Your task to perform on an android device: Clear the shopping cart on newegg.com. Search for dell xps on newegg.com, select the first entry, add it to the cart, then select checkout. Image 0: 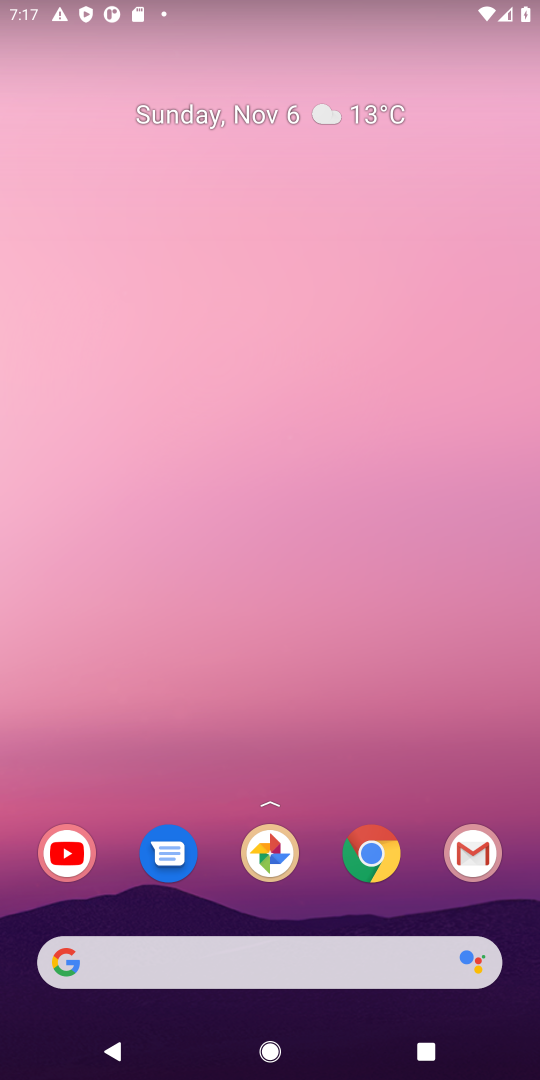
Step 0: click (367, 854)
Your task to perform on an android device: Clear the shopping cart on newegg.com. Search for dell xps on newegg.com, select the first entry, add it to the cart, then select checkout. Image 1: 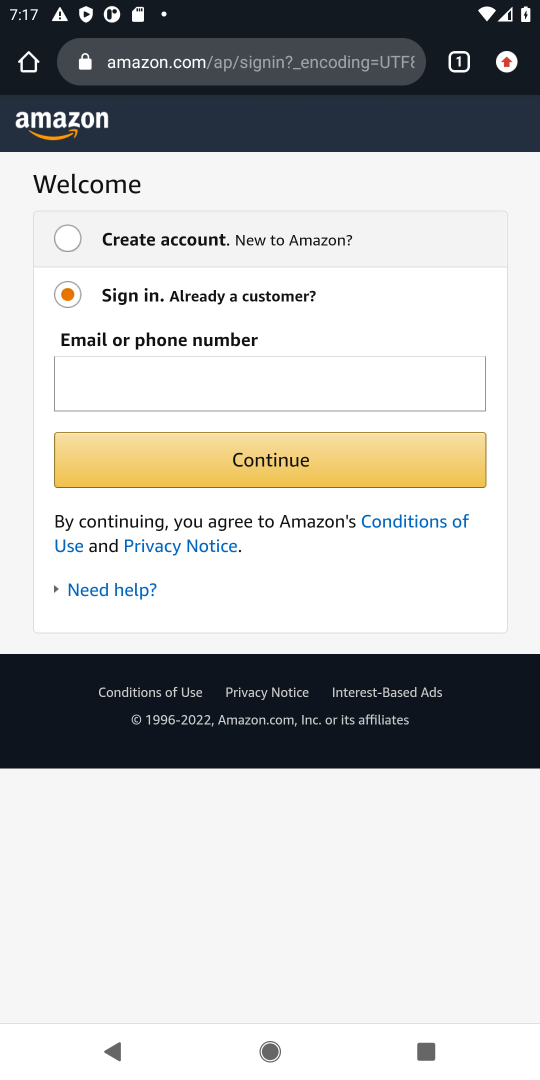
Step 1: click (315, 42)
Your task to perform on an android device: Clear the shopping cart on newegg.com. Search for dell xps on newegg.com, select the first entry, add it to the cart, then select checkout. Image 2: 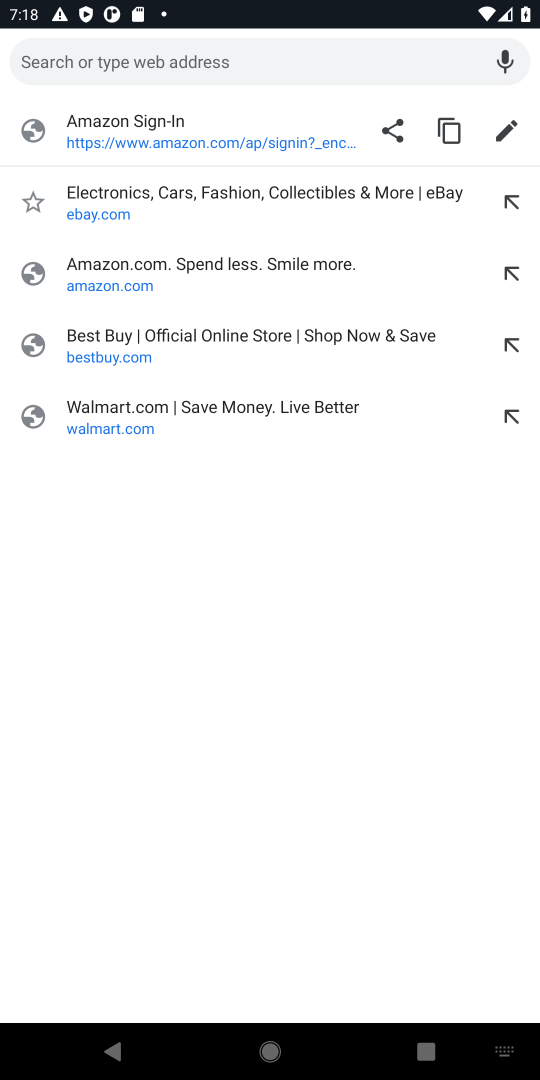
Step 2: type "newegg.com"
Your task to perform on an android device: Clear the shopping cart on newegg.com. Search for dell xps on newegg.com, select the first entry, add it to the cart, then select checkout. Image 3: 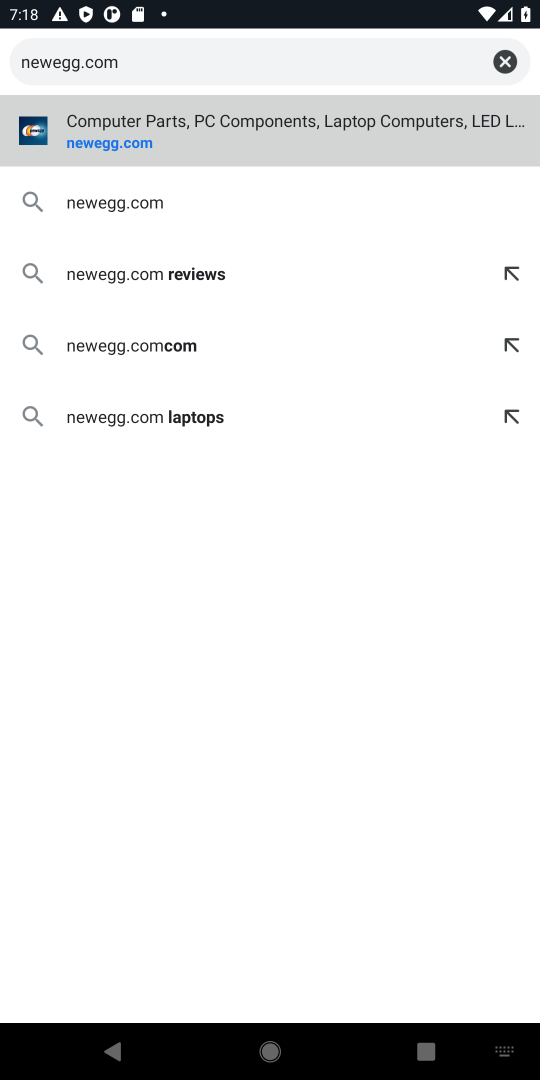
Step 3: click (77, 127)
Your task to perform on an android device: Clear the shopping cart on newegg.com. Search for dell xps on newegg.com, select the first entry, add it to the cart, then select checkout. Image 4: 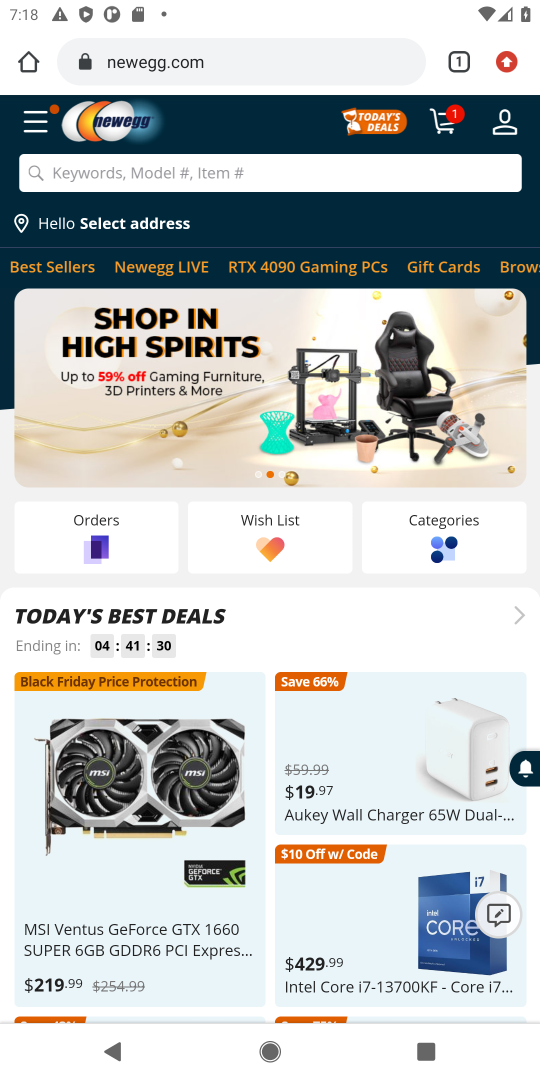
Step 4: click (440, 116)
Your task to perform on an android device: Clear the shopping cart on newegg.com. Search for dell xps on newegg.com, select the first entry, add it to the cart, then select checkout. Image 5: 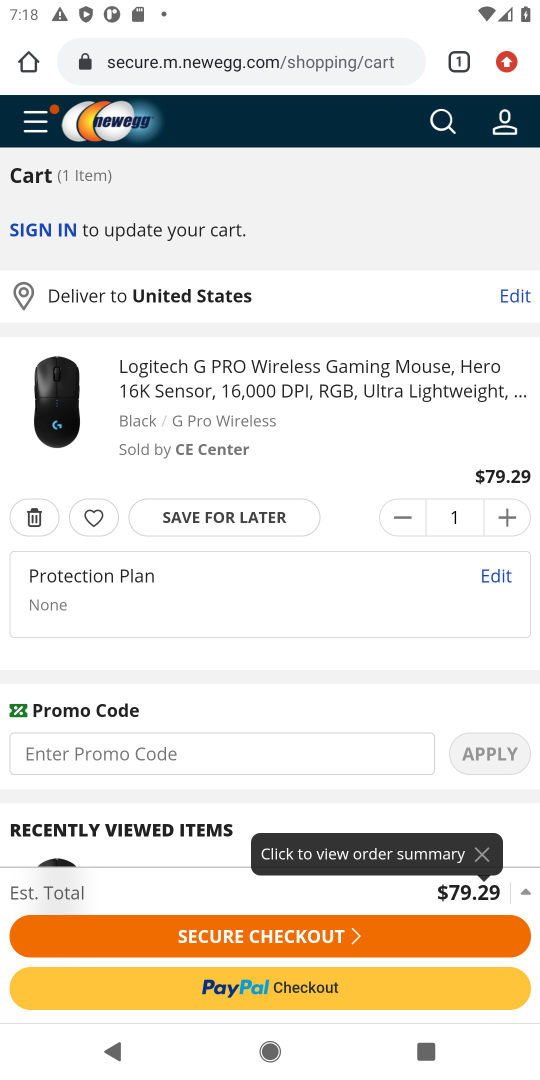
Step 5: click (27, 516)
Your task to perform on an android device: Clear the shopping cart on newegg.com. Search for dell xps on newegg.com, select the first entry, add it to the cart, then select checkout. Image 6: 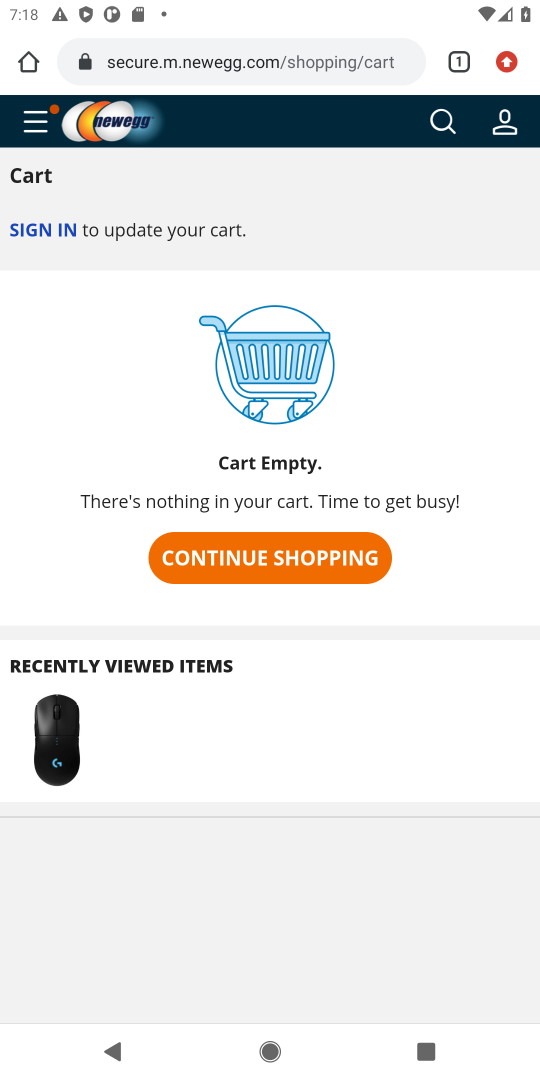
Step 6: click (240, 551)
Your task to perform on an android device: Clear the shopping cart on newegg.com. Search for dell xps on newegg.com, select the first entry, add it to the cart, then select checkout. Image 7: 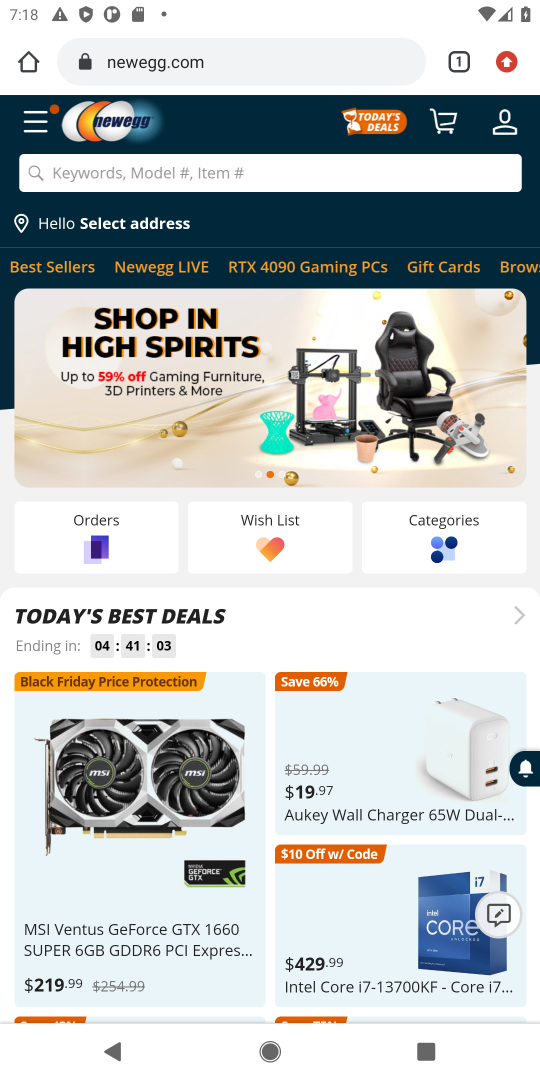
Step 7: click (198, 165)
Your task to perform on an android device: Clear the shopping cart on newegg.com. Search for dell xps on newegg.com, select the first entry, add it to the cart, then select checkout. Image 8: 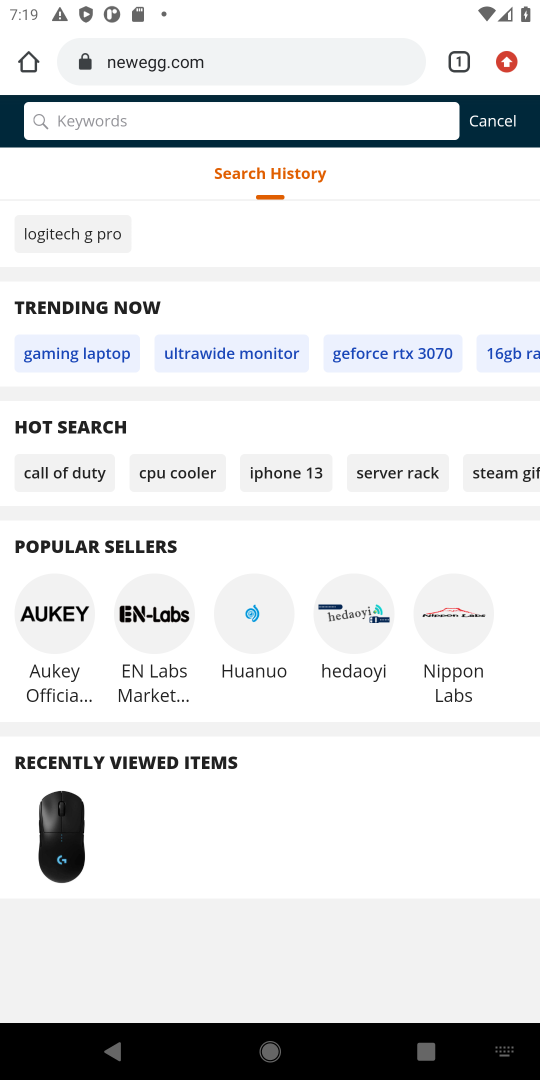
Step 8: type "dell xps"
Your task to perform on an android device: Clear the shopping cart on newegg.com. Search for dell xps on newegg.com, select the first entry, add it to the cart, then select checkout. Image 9: 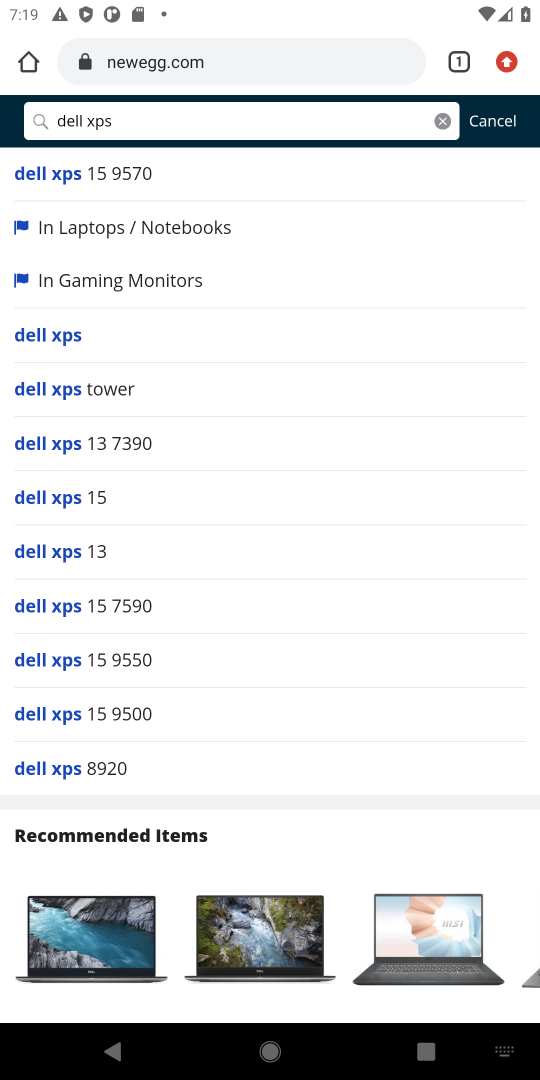
Step 9: click (45, 173)
Your task to perform on an android device: Clear the shopping cart on newegg.com. Search for dell xps on newegg.com, select the first entry, add it to the cart, then select checkout. Image 10: 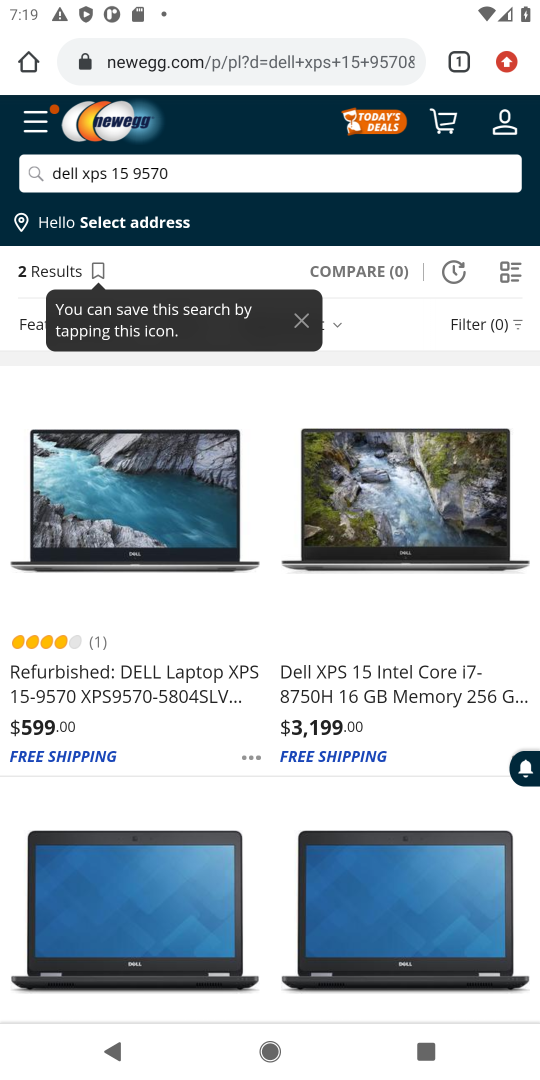
Step 10: click (381, 666)
Your task to perform on an android device: Clear the shopping cart on newegg.com. Search for dell xps on newegg.com, select the first entry, add it to the cart, then select checkout. Image 11: 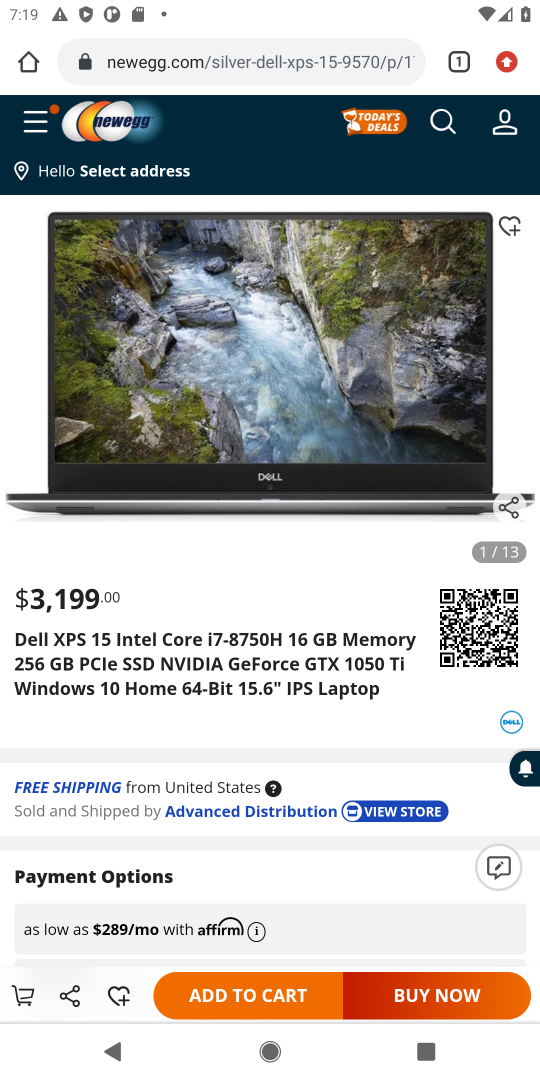
Step 11: click (252, 993)
Your task to perform on an android device: Clear the shopping cart on newegg.com. Search for dell xps on newegg.com, select the first entry, add it to the cart, then select checkout. Image 12: 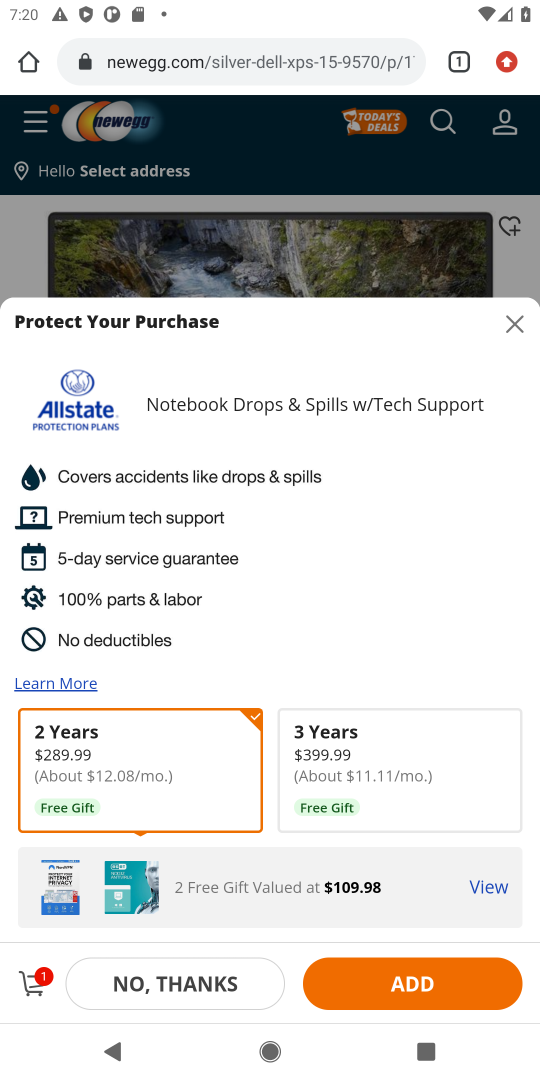
Step 12: click (174, 982)
Your task to perform on an android device: Clear the shopping cart on newegg.com. Search for dell xps on newegg.com, select the first entry, add it to the cart, then select checkout. Image 13: 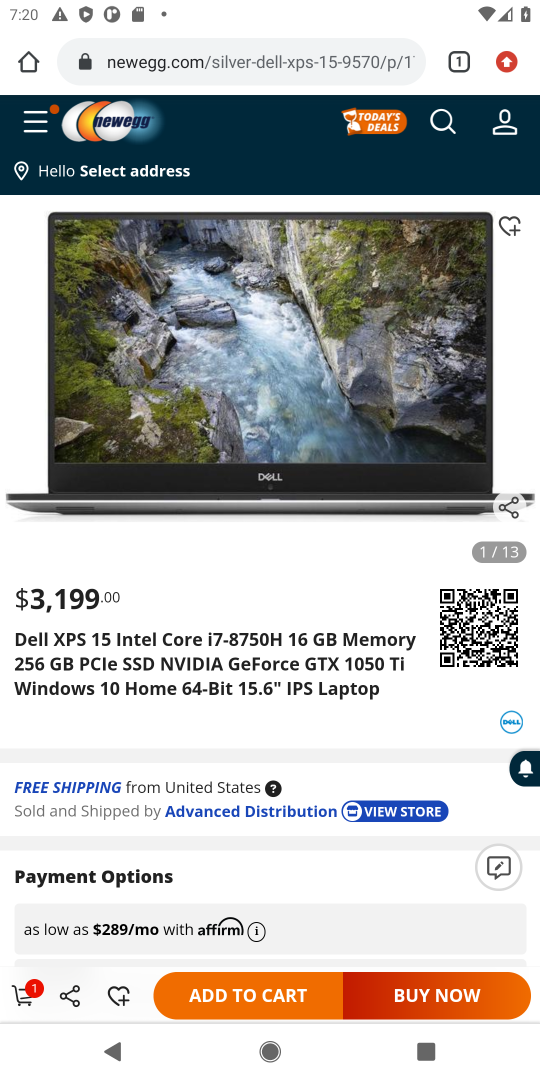
Step 13: click (25, 991)
Your task to perform on an android device: Clear the shopping cart on newegg.com. Search for dell xps on newegg.com, select the first entry, add it to the cart, then select checkout. Image 14: 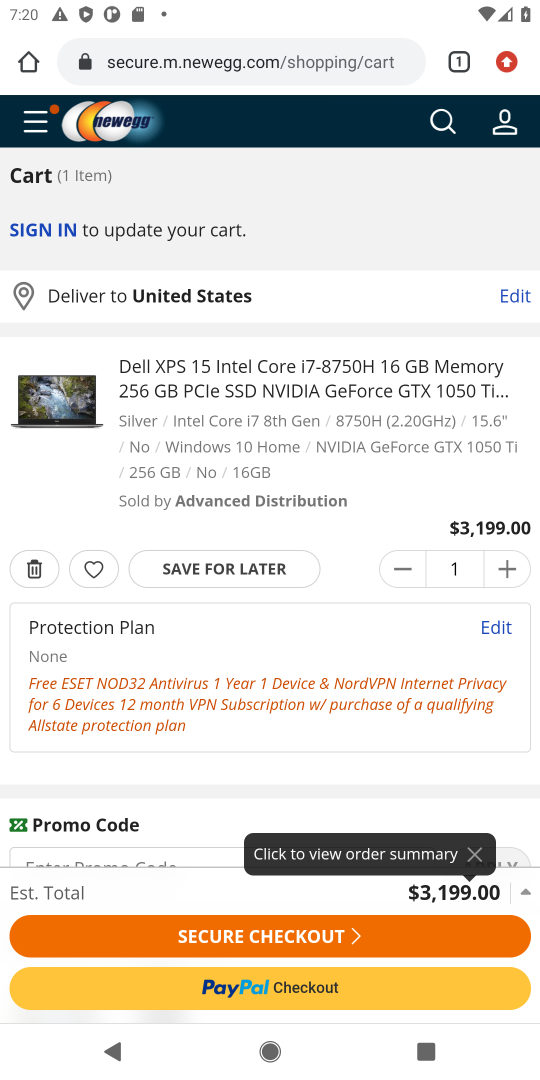
Step 14: click (273, 928)
Your task to perform on an android device: Clear the shopping cart on newegg.com. Search for dell xps on newegg.com, select the first entry, add it to the cart, then select checkout. Image 15: 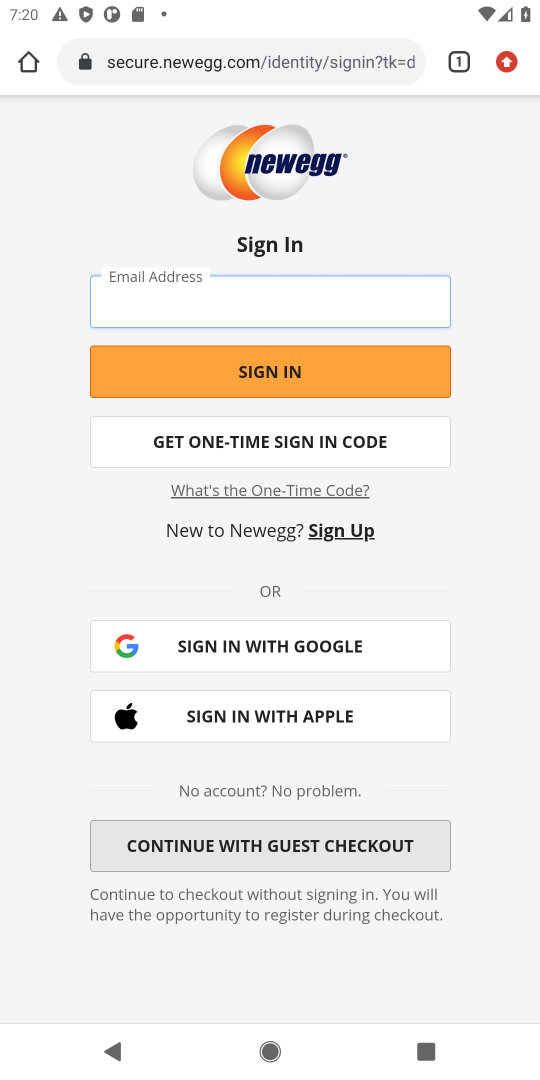
Step 15: task complete